Your task to perform on an android device: turn vacation reply on in the gmail app Image 0: 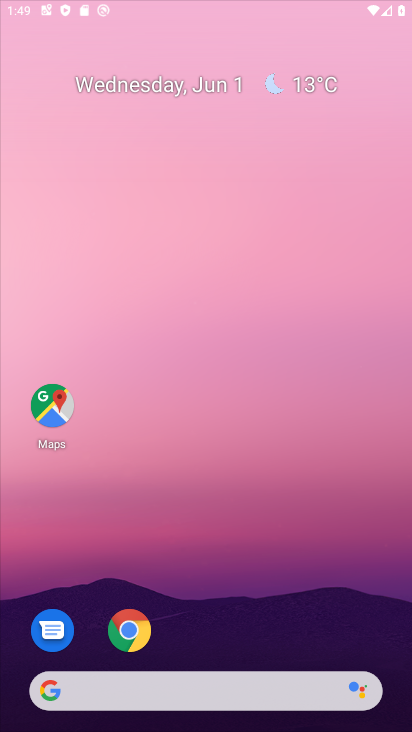
Step 0: press home button
Your task to perform on an android device: turn vacation reply on in the gmail app Image 1: 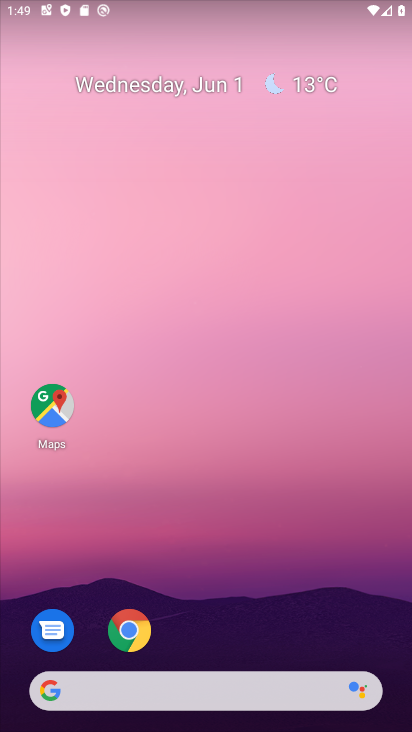
Step 1: drag from (243, 414) to (266, 13)
Your task to perform on an android device: turn vacation reply on in the gmail app Image 2: 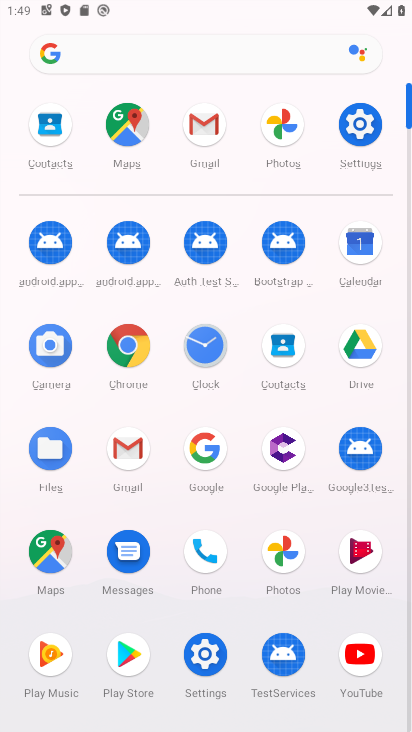
Step 2: click (200, 117)
Your task to perform on an android device: turn vacation reply on in the gmail app Image 3: 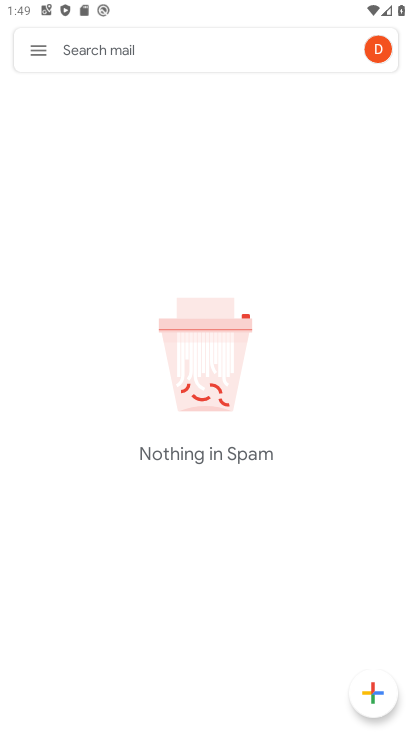
Step 3: click (35, 46)
Your task to perform on an android device: turn vacation reply on in the gmail app Image 4: 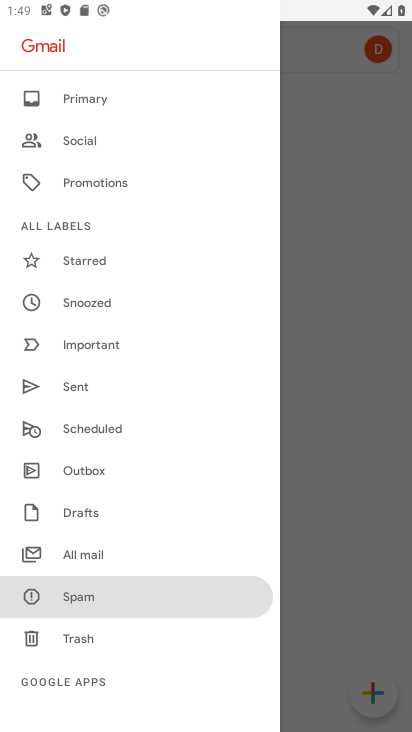
Step 4: drag from (135, 515) to (167, 29)
Your task to perform on an android device: turn vacation reply on in the gmail app Image 5: 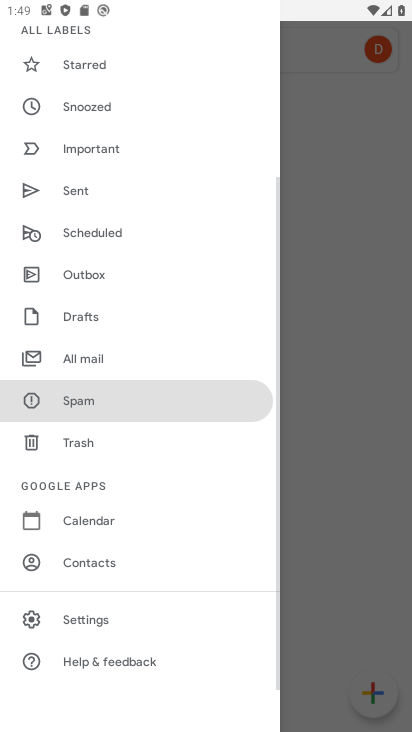
Step 5: click (118, 613)
Your task to perform on an android device: turn vacation reply on in the gmail app Image 6: 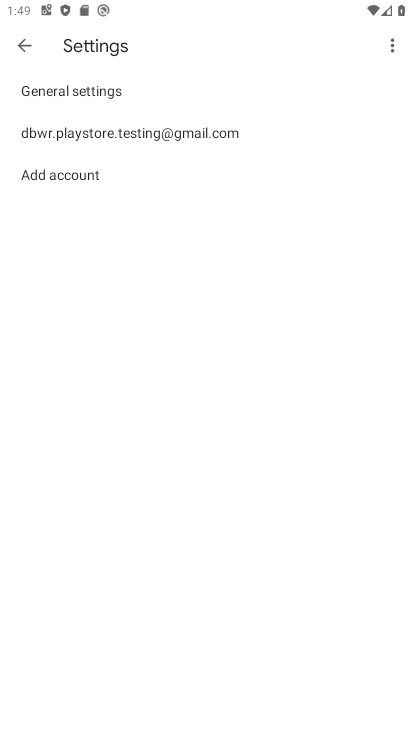
Step 6: click (254, 128)
Your task to perform on an android device: turn vacation reply on in the gmail app Image 7: 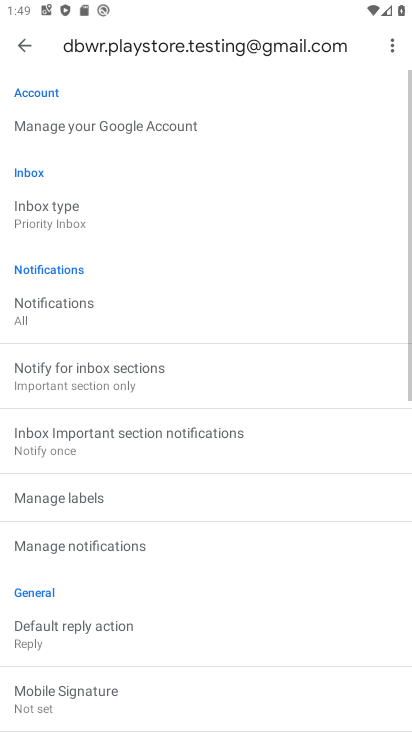
Step 7: drag from (156, 657) to (197, 62)
Your task to perform on an android device: turn vacation reply on in the gmail app Image 8: 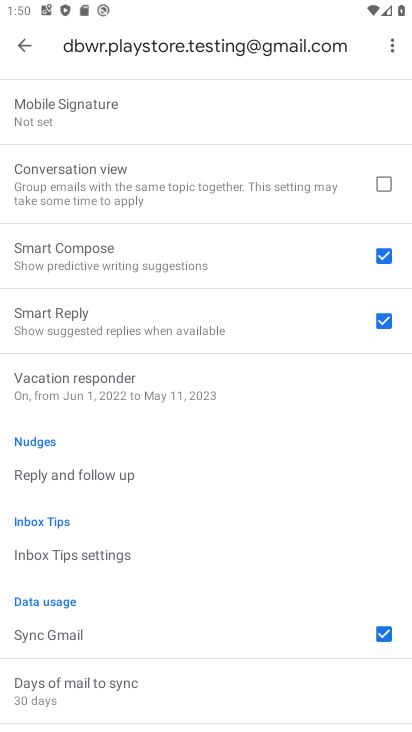
Step 8: drag from (187, 668) to (208, 364)
Your task to perform on an android device: turn vacation reply on in the gmail app Image 9: 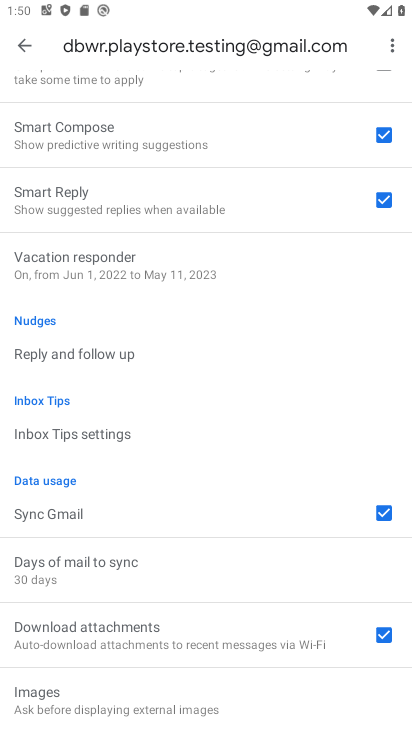
Step 9: click (156, 254)
Your task to perform on an android device: turn vacation reply on in the gmail app Image 10: 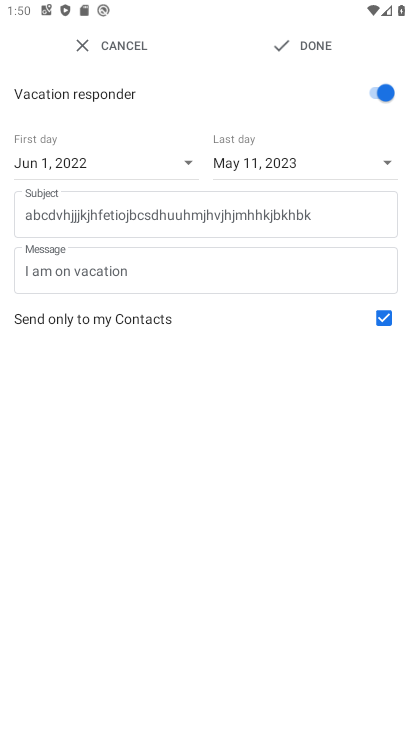
Step 10: task complete